Your task to perform on an android device: Open battery settings Image 0: 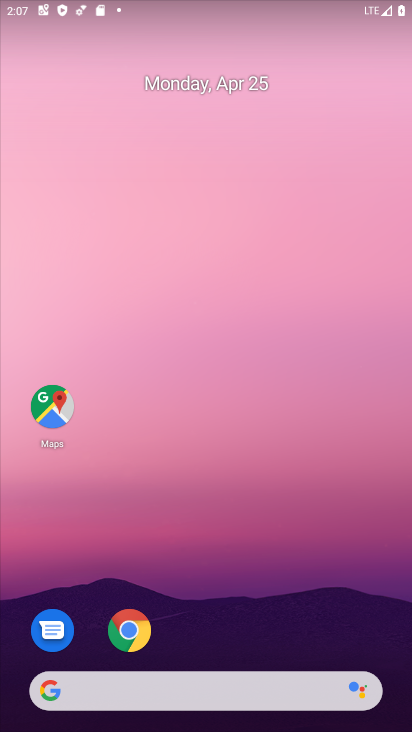
Step 0: drag from (357, 600) to (393, 40)
Your task to perform on an android device: Open battery settings Image 1: 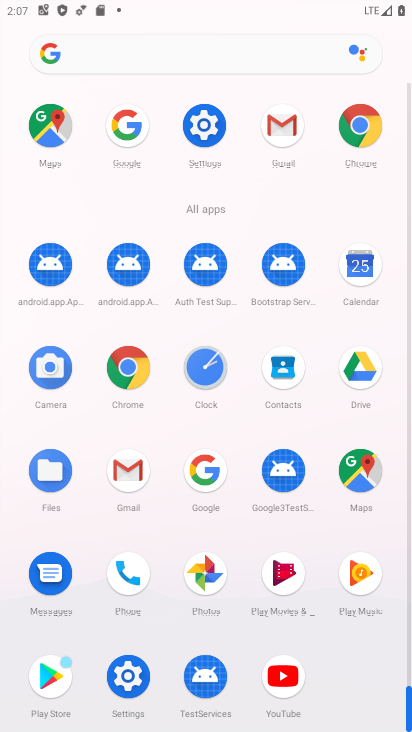
Step 1: click (197, 127)
Your task to perform on an android device: Open battery settings Image 2: 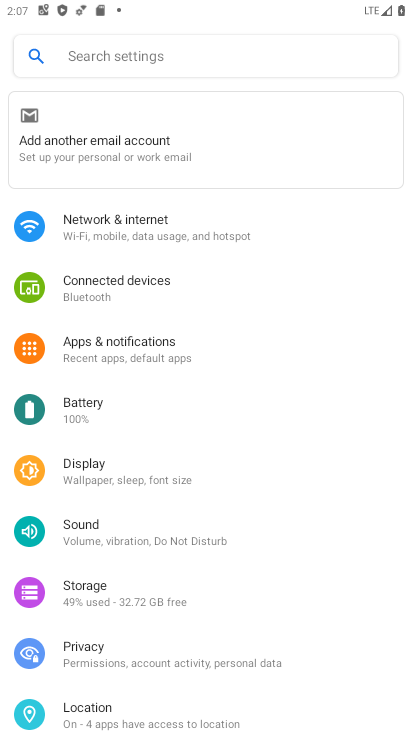
Step 2: drag from (351, 641) to (338, 458)
Your task to perform on an android device: Open battery settings Image 3: 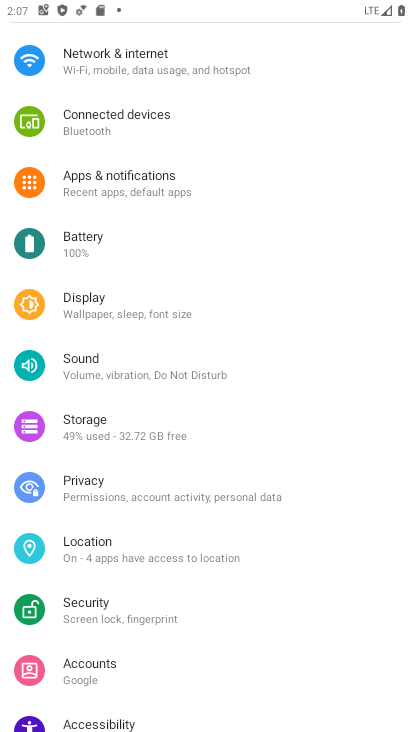
Step 3: drag from (342, 629) to (355, 459)
Your task to perform on an android device: Open battery settings Image 4: 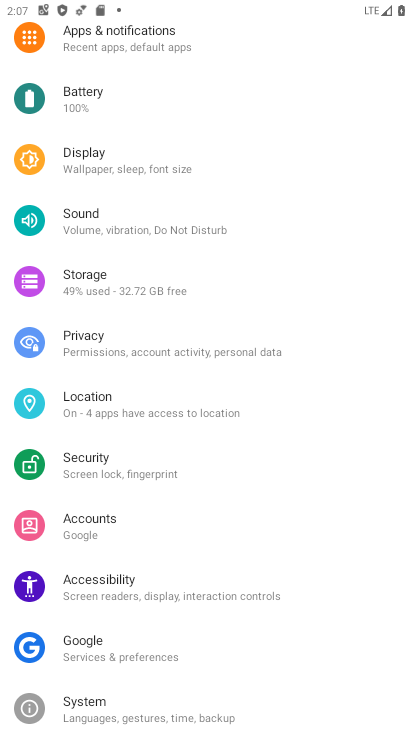
Step 4: drag from (340, 640) to (343, 320)
Your task to perform on an android device: Open battery settings Image 5: 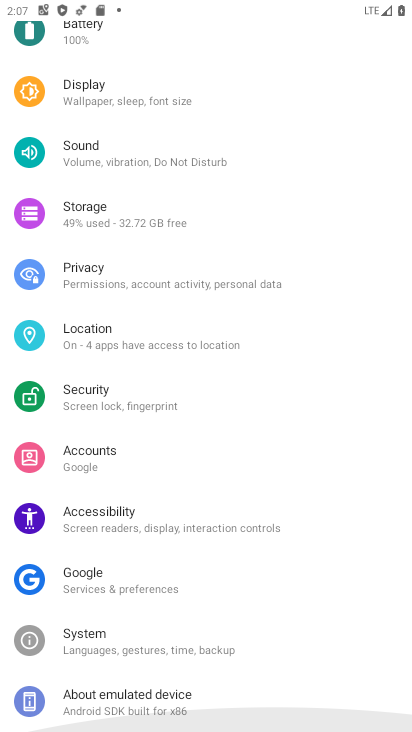
Step 5: drag from (349, 266) to (345, 413)
Your task to perform on an android device: Open battery settings Image 6: 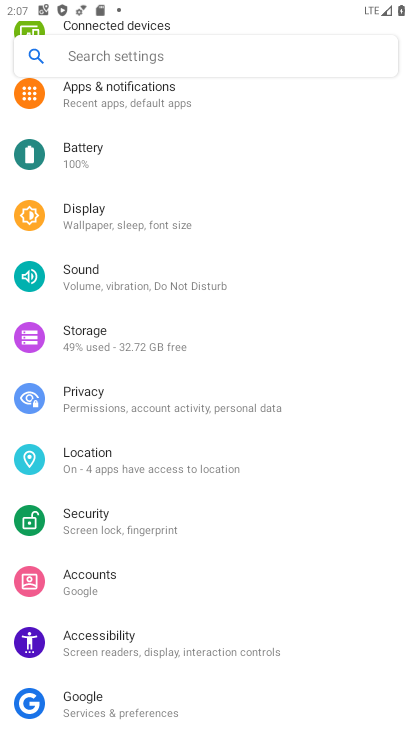
Step 6: drag from (359, 292) to (327, 439)
Your task to perform on an android device: Open battery settings Image 7: 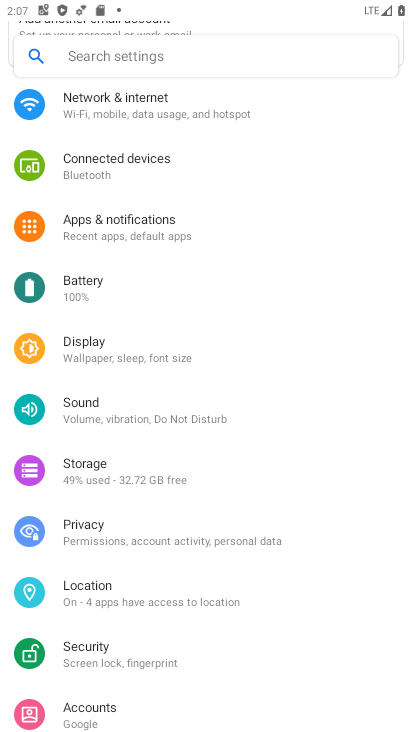
Step 7: drag from (331, 301) to (338, 448)
Your task to perform on an android device: Open battery settings Image 8: 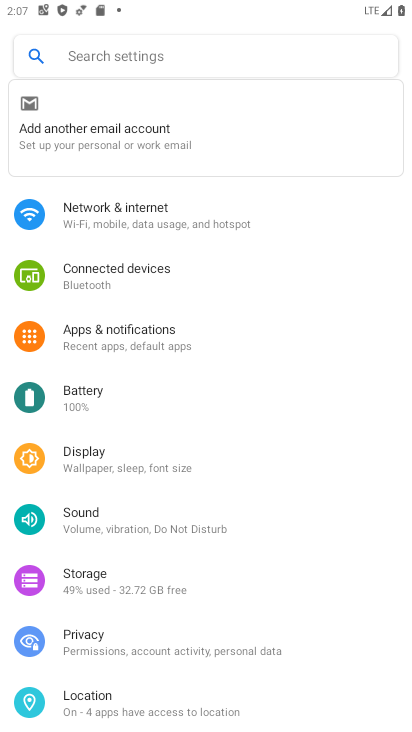
Step 8: drag from (337, 319) to (341, 429)
Your task to perform on an android device: Open battery settings Image 9: 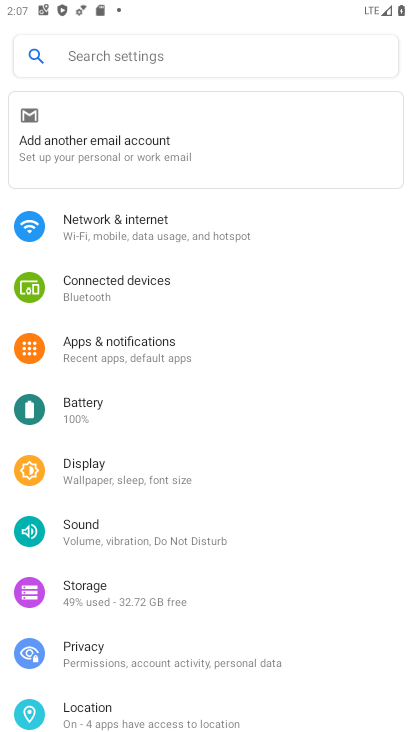
Step 9: click (233, 426)
Your task to perform on an android device: Open battery settings Image 10: 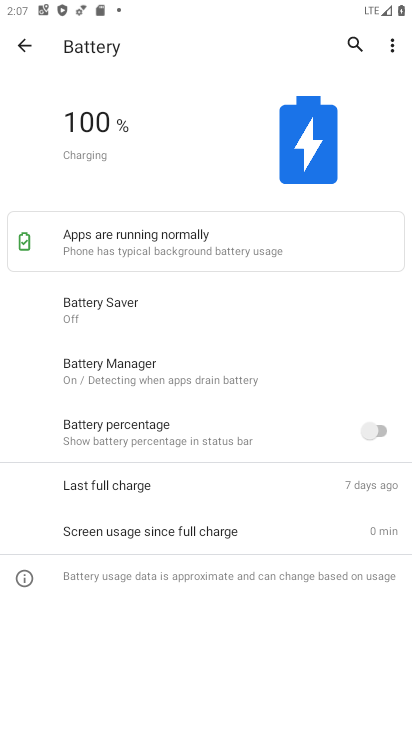
Step 10: task complete